Your task to perform on an android device: Open network settings Image 0: 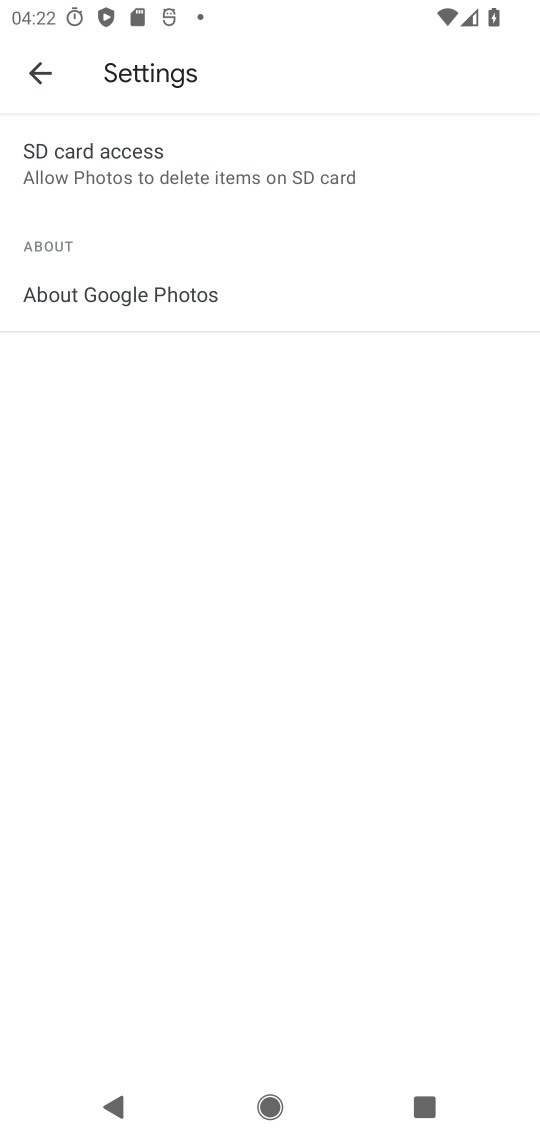
Step 0: press home button
Your task to perform on an android device: Open network settings Image 1: 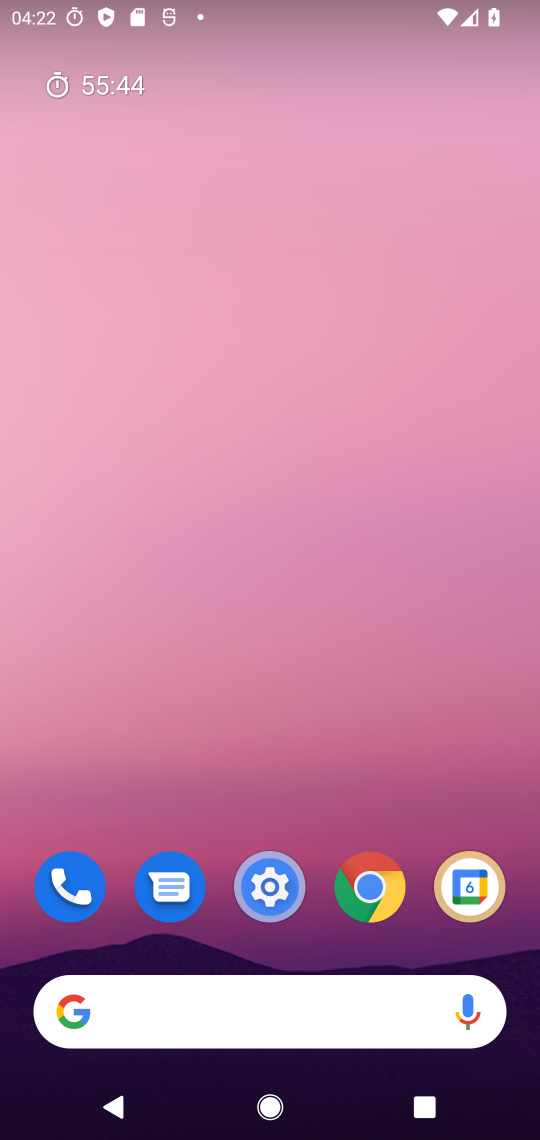
Step 1: drag from (317, 778) to (328, 289)
Your task to perform on an android device: Open network settings Image 2: 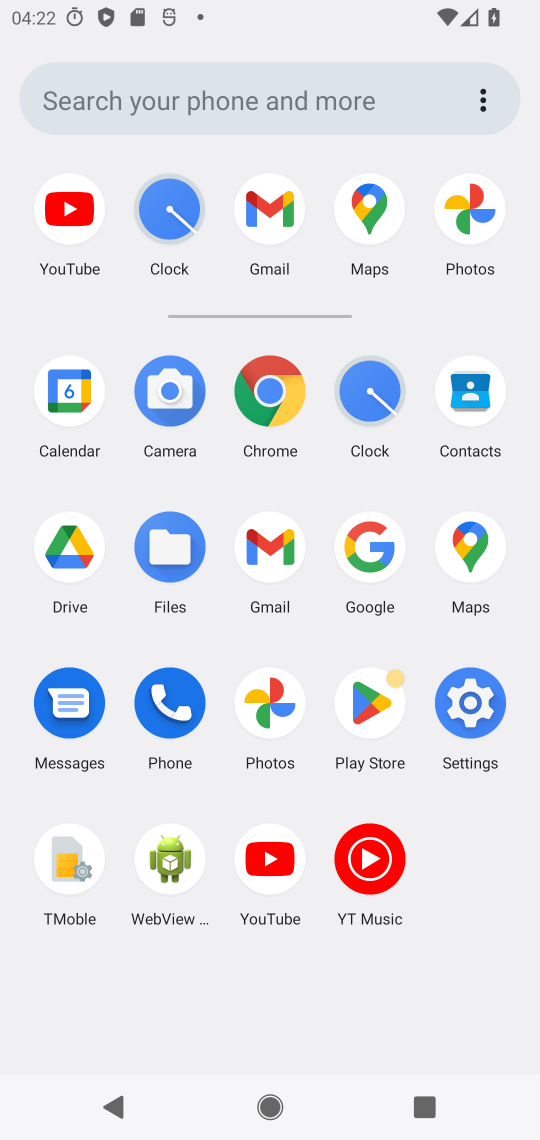
Step 2: click (462, 712)
Your task to perform on an android device: Open network settings Image 3: 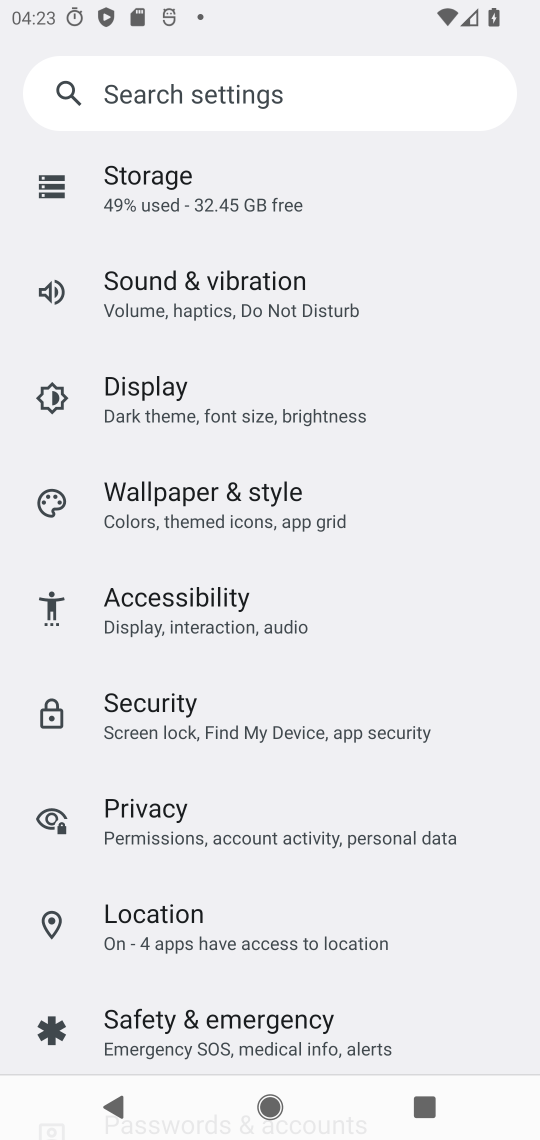
Step 3: drag from (481, 528) to (481, 652)
Your task to perform on an android device: Open network settings Image 4: 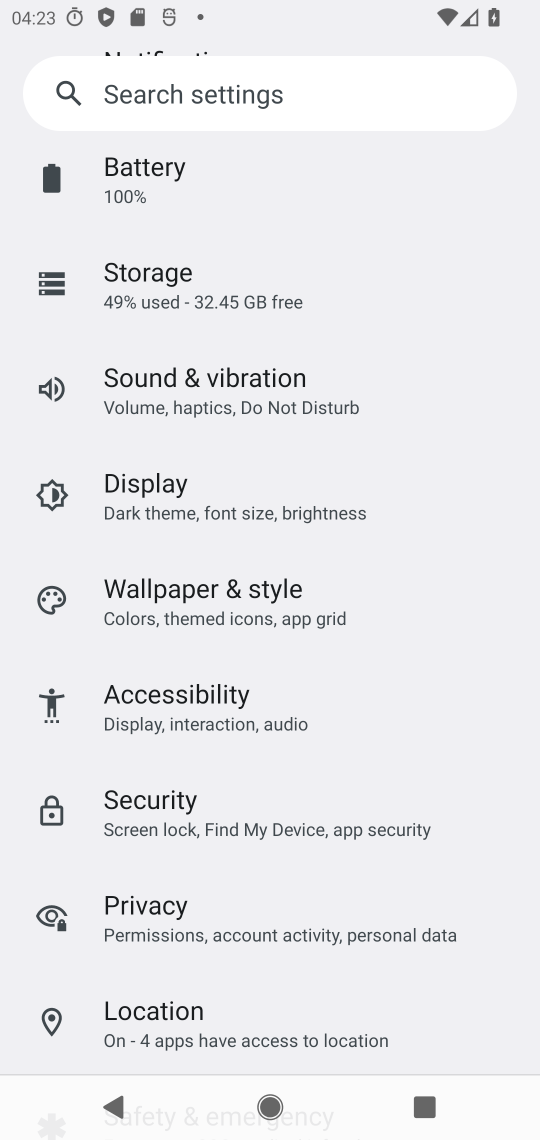
Step 4: drag from (469, 457) to (485, 657)
Your task to perform on an android device: Open network settings Image 5: 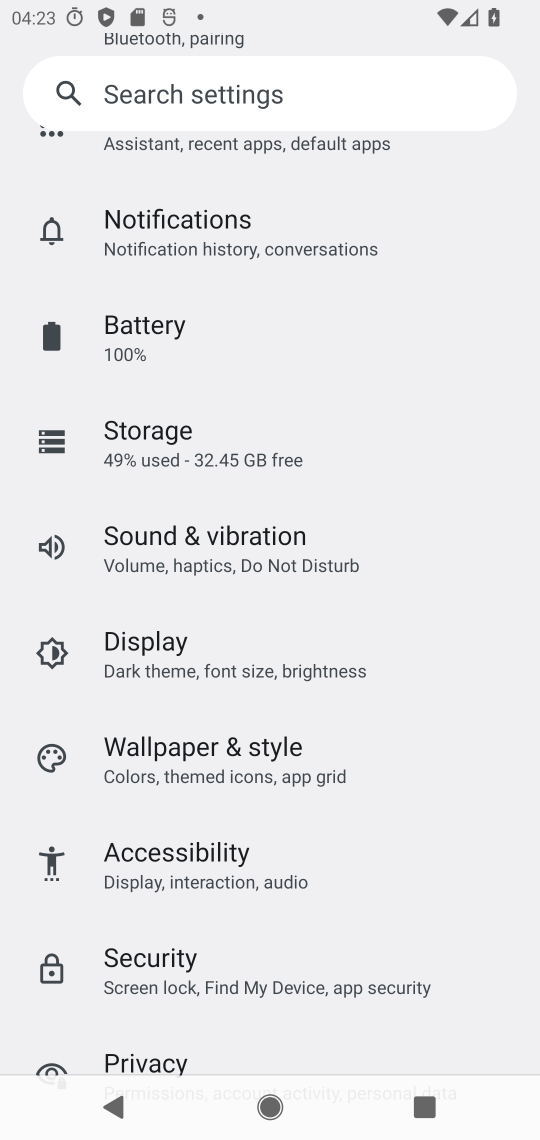
Step 5: drag from (469, 477) to (464, 634)
Your task to perform on an android device: Open network settings Image 6: 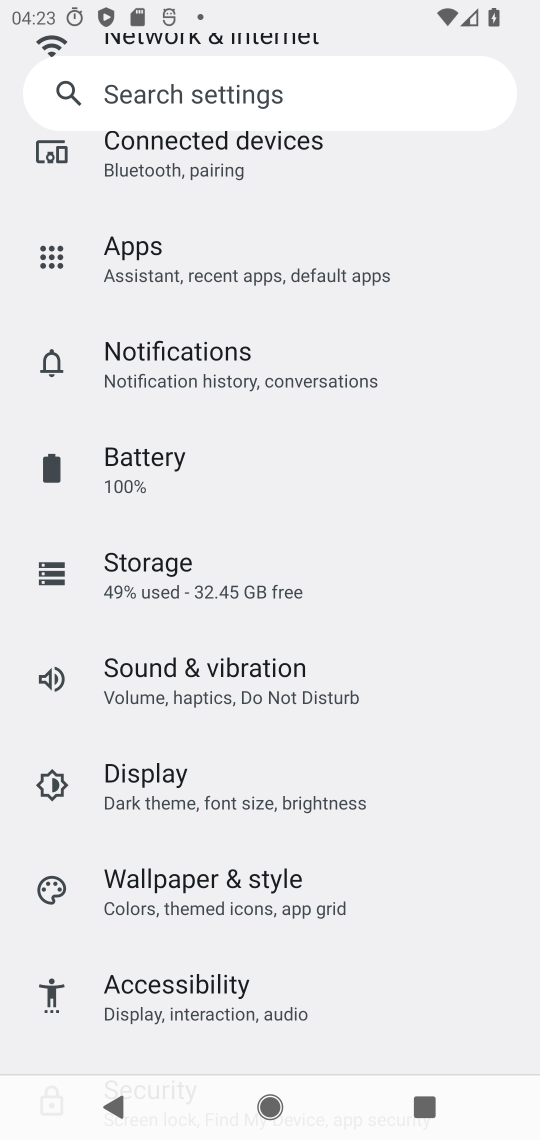
Step 6: drag from (459, 488) to (459, 624)
Your task to perform on an android device: Open network settings Image 7: 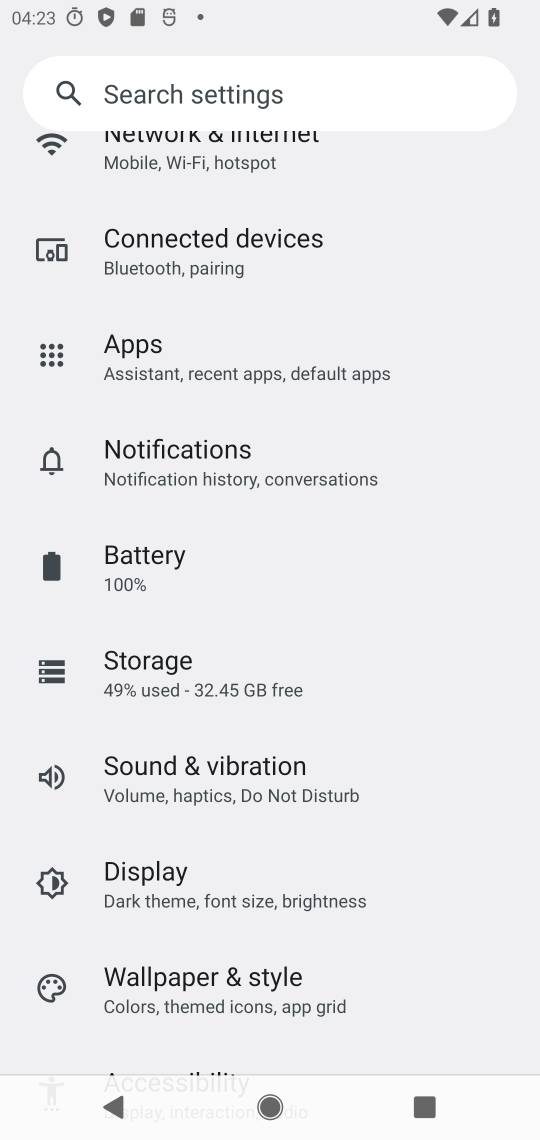
Step 7: drag from (458, 397) to (471, 534)
Your task to perform on an android device: Open network settings Image 8: 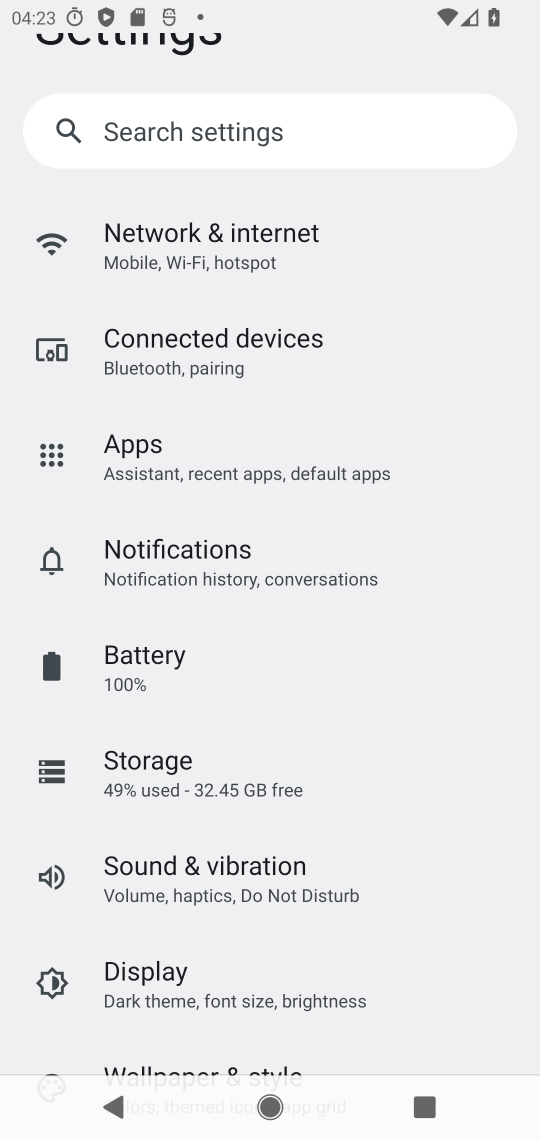
Step 8: drag from (449, 334) to (452, 560)
Your task to perform on an android device: Open network settings Image 9: 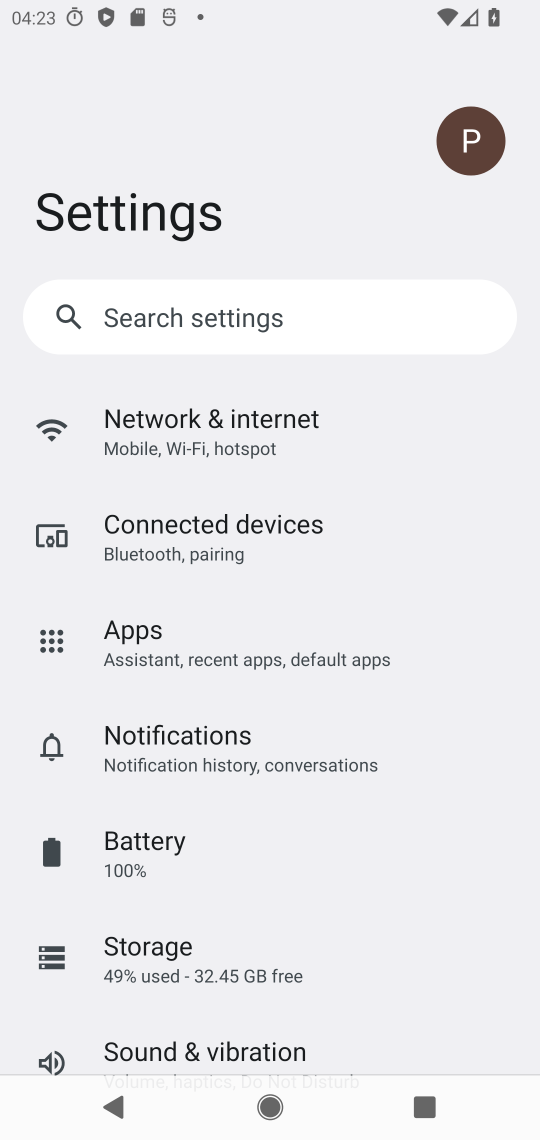
Step 9: drag from (472, 239) to (476, 530)
Your task to perform on an android device: Open network settings Image 10: 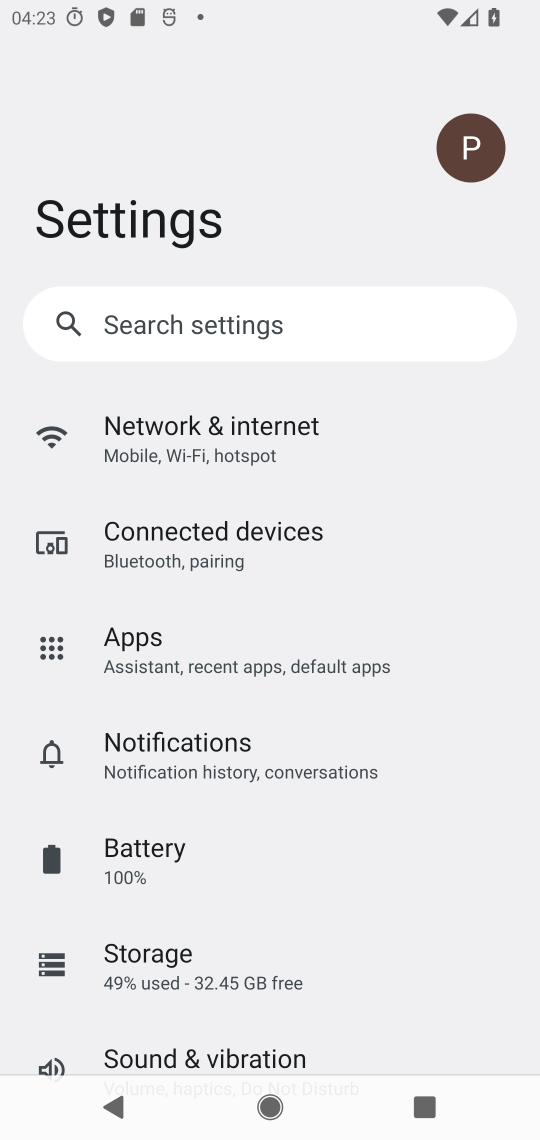
Step 10: click (345, 462)
Your task to perform on an android device: Open network settings Image 11: 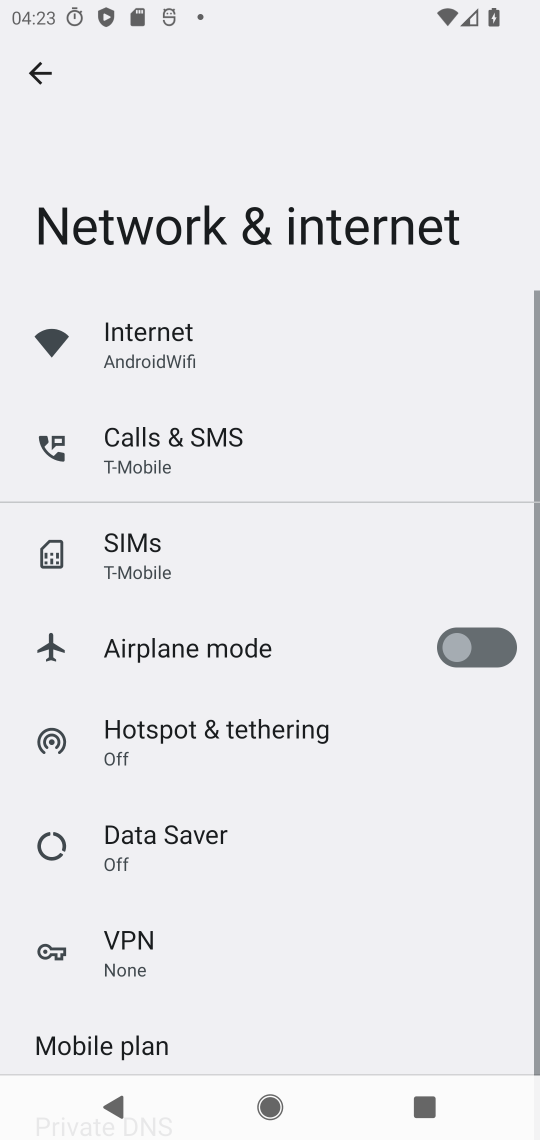
Step 11: drag from (328, 651) to (348, 463)
Your task to perform on an android device: Open network settings Image 12: 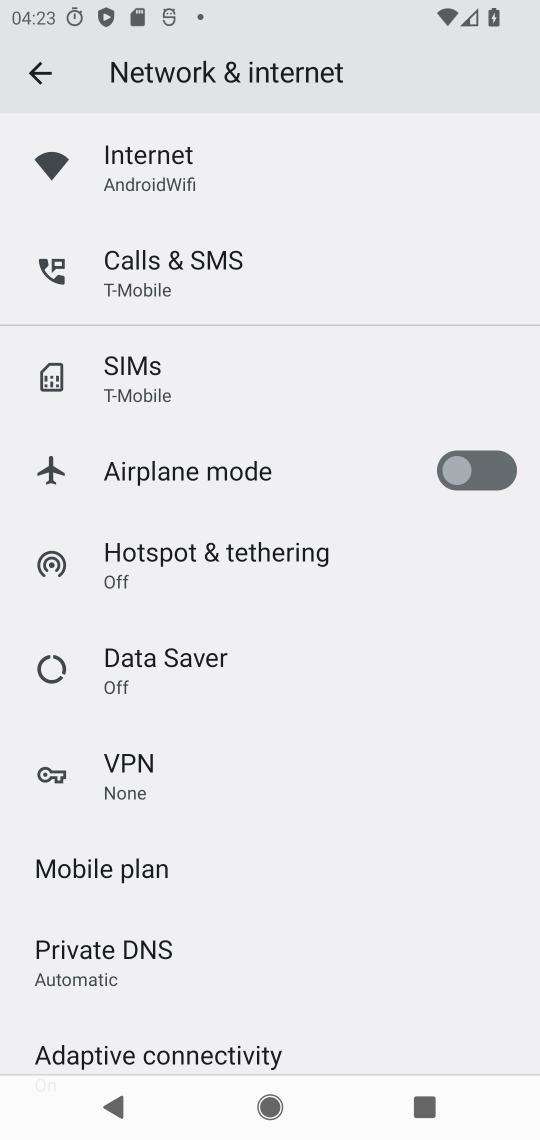
Step 12: drag from (371, 703) to (375, 346)
Your task to perform on an android device: Open network settings Image 13: 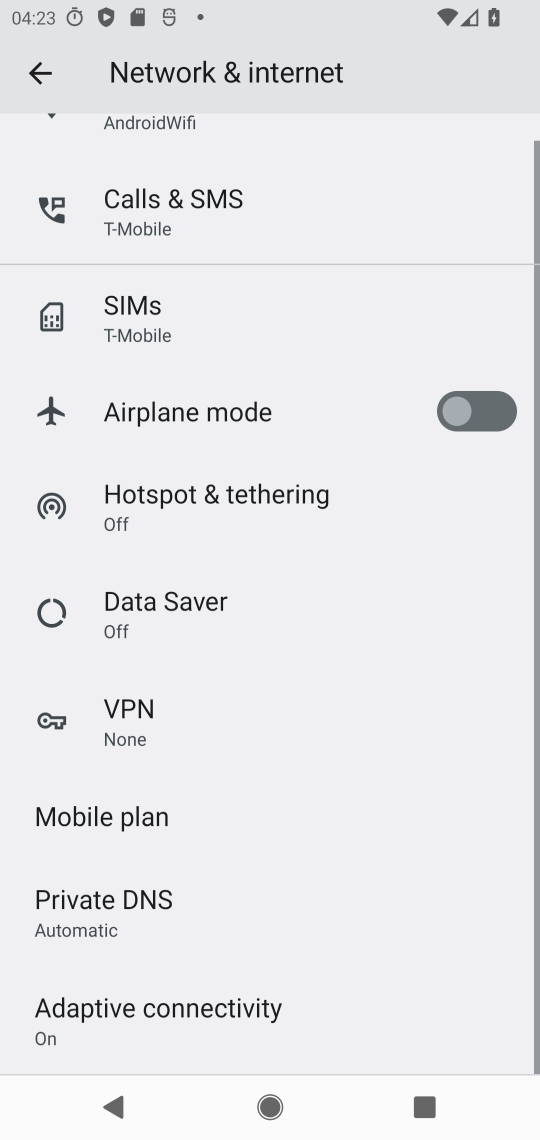
Step 13: drag from (370, 306) to (389, 643)
Your task to perform on an android device: Open network settings Image 14: 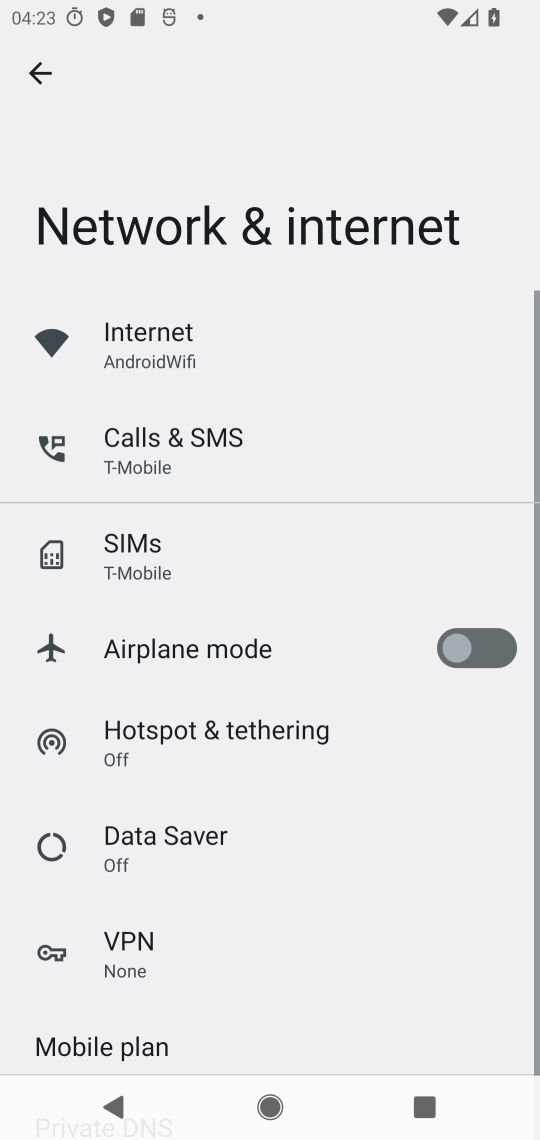
Step 14: click (234, 360)
Your task to perform on an android device: Open network settings Image 15: 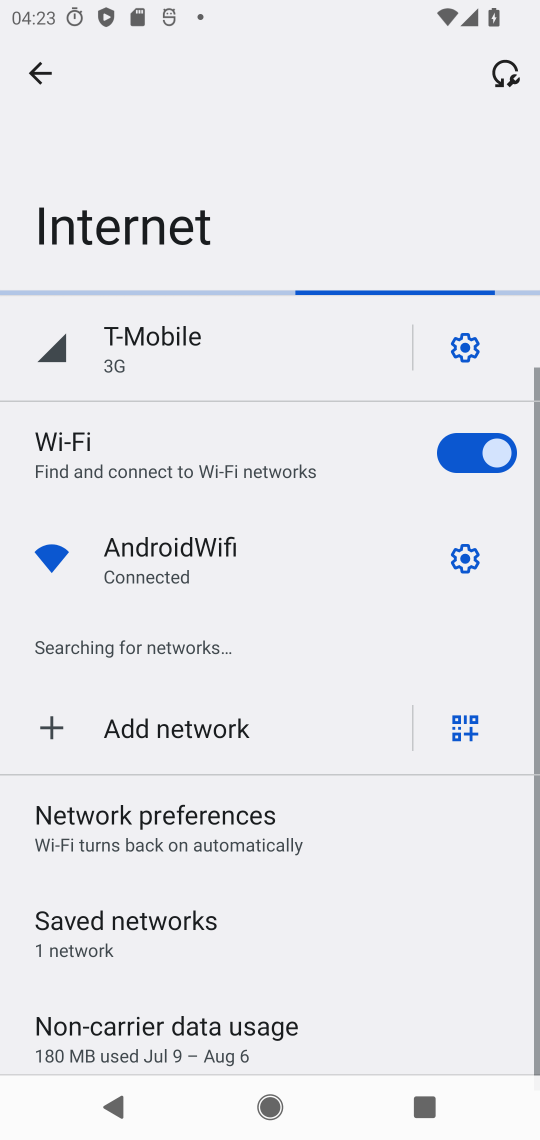
Step 15: task complete